Your task to perform on an android device: turn off picture-in-picture Image 0: 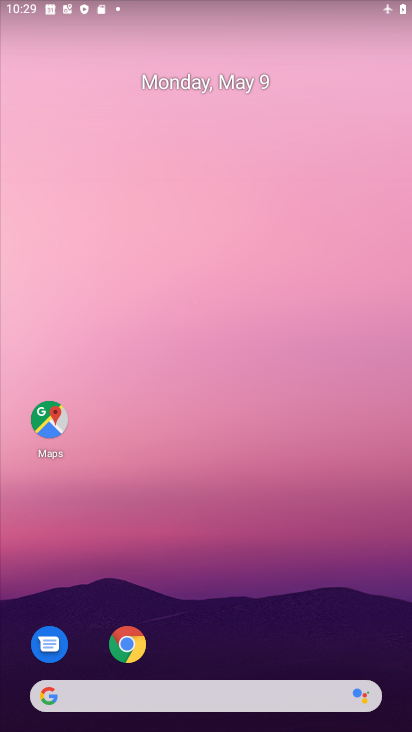
Step 0: click (116, 641)
Your task to perform on an android device: turn off picture-in-picture Image 1: 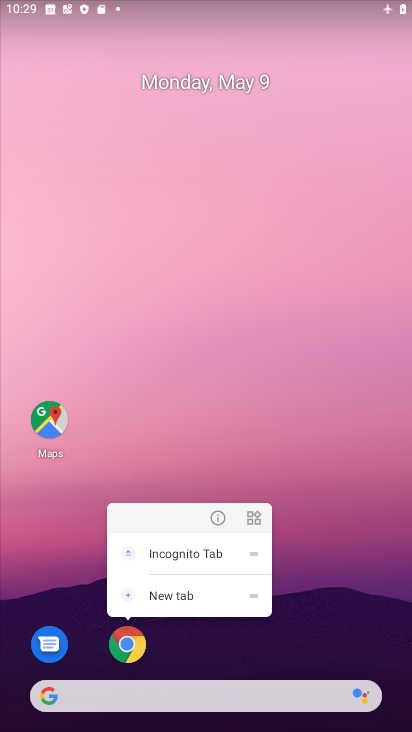
Step 1: click (222, 510)
Your task to perform on an android device: turn off picture-in-picture Image 2: 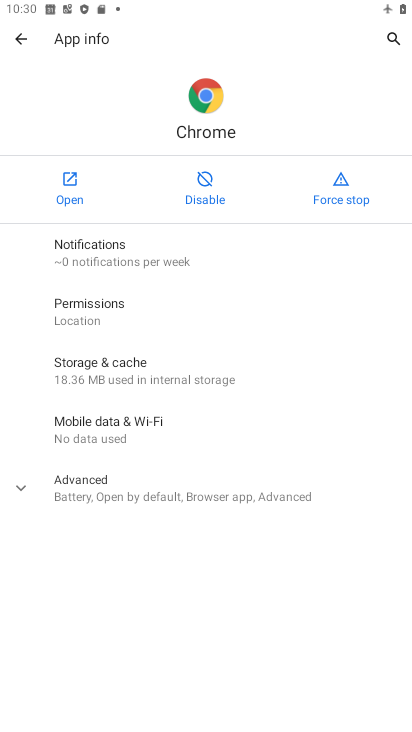
Step 2: click (70, 479)
Your task to perform on an android device: turn off picture-in-picture Image 3: 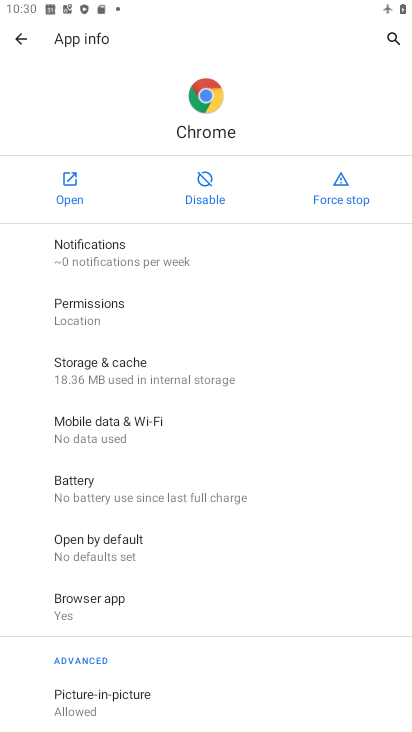
Step 3: click (94, 704)
Your task to perform on an android device: turn off picture-in-picture Image 4: 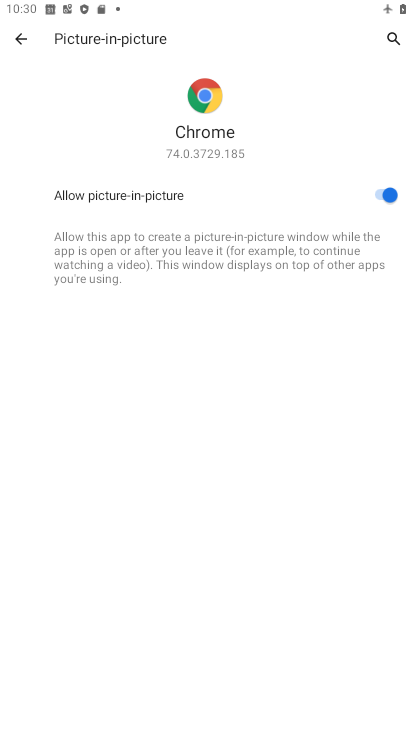
Step 4: click (375, 191)
Your task to perform on an android device: turn off picture-in-picture Image 5: 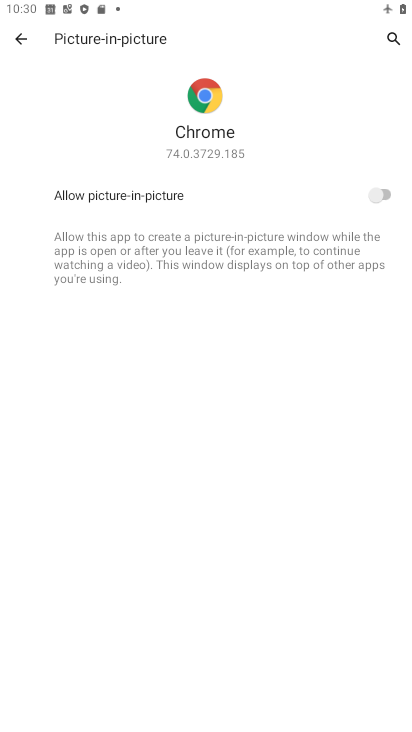
Step 5: task complete